Your task to perform on an android device: Open Youtube and go to the subscriptions tab Image 0: 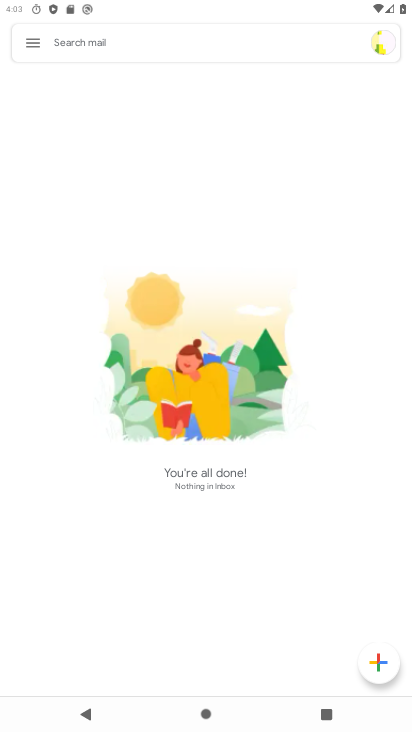
Step 0: press home button
Your task to perform on an android device: Open Youtube and go to the subscriptions tab Image 1: 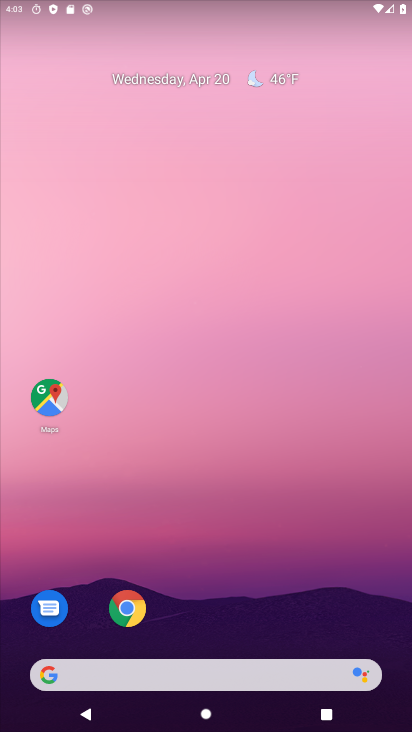
Step 1: drag from (234, 651) to (205, 64)
Your task to perform on an android device: Open Youtube and go to the subscriptions tab Image 2: 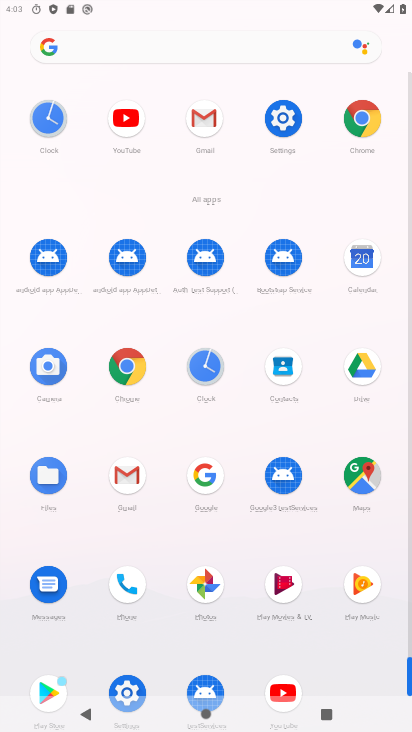
Step 2: click (289, 680)
Your task to perform on an android device: Open Youtube and go to the subscriptions tab Image 3: 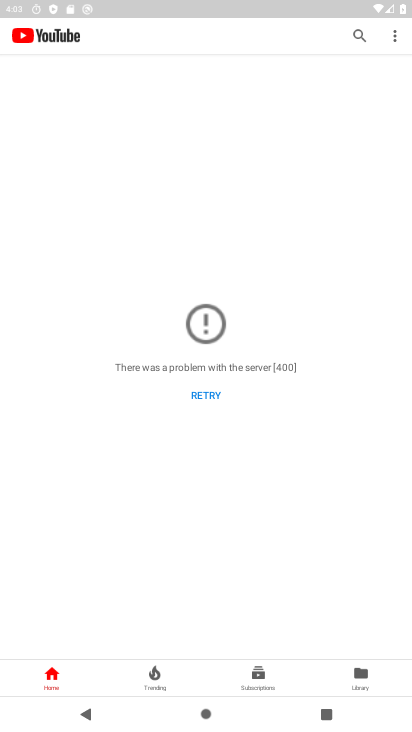
Step 3: click (261, 674)
Your task to perform on an android device: Open Youtube and go to the subscriptions tab Image 4: 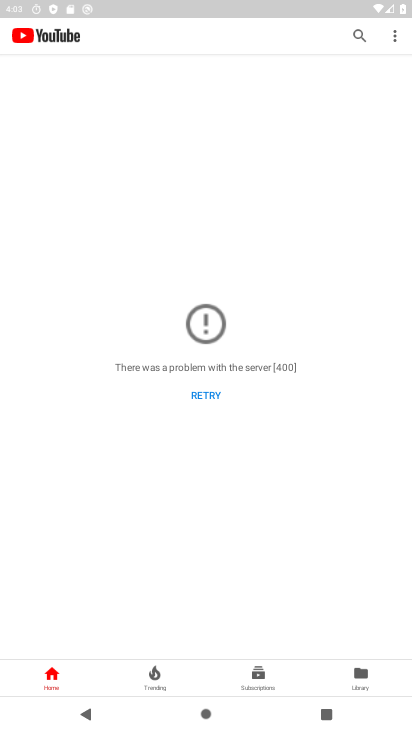
Step 4: click (241, 673)
Your task to perform on an android device: Open Youtube and go to the subscriptions tab Image 5: 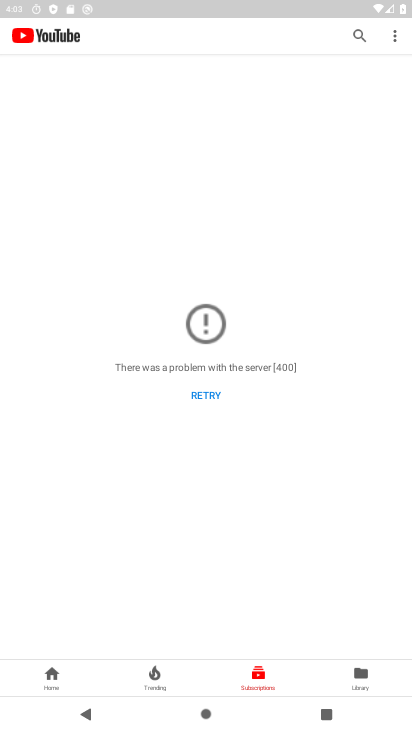
Step 5: task complete